Your task to perform on an android device: change the clock display to digital Image 0: 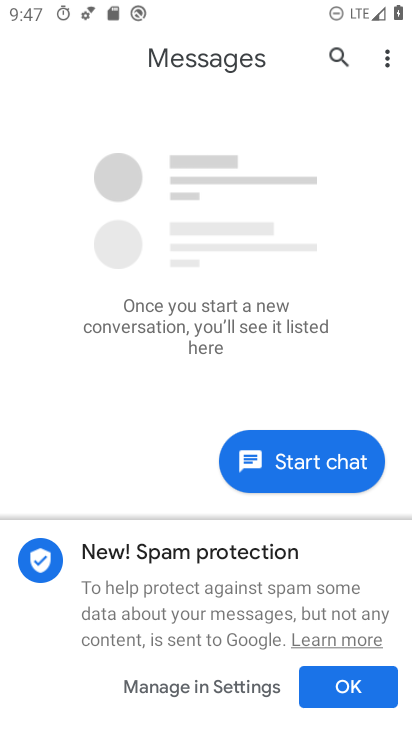
Step 0: press home button
Your task to perform on an android device: change the clock display to digital Image 1: 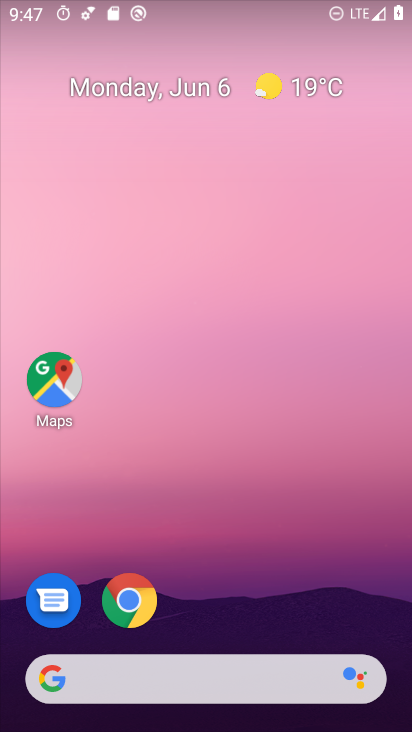
Step 1: drag from (250, 567) to (170, 4)
Your task to perform on an android device: change the clock display to digital Image 2: 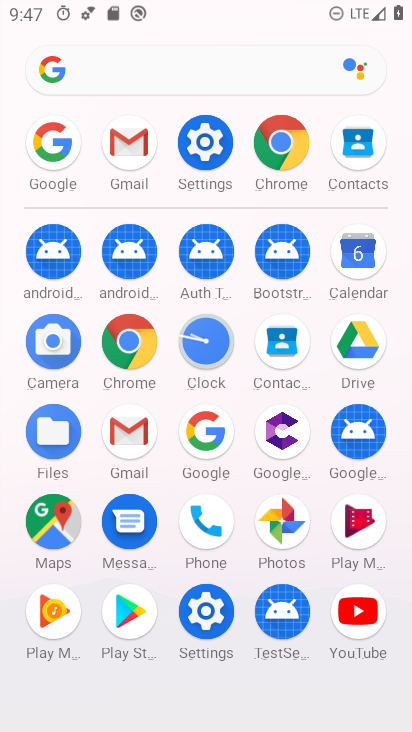
Step 2: click (212, 335)
Your task to perform on an android device: change the clock display to digital Image 3: 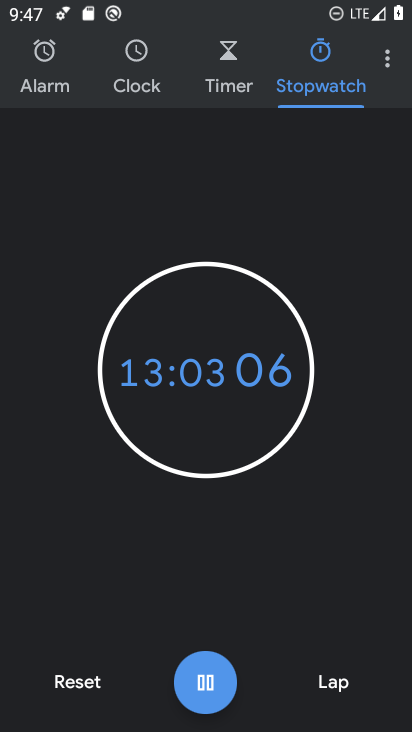
Step 3: click (388, 59)
Your task to perform on an android device: change the clock display to digital Image 4: 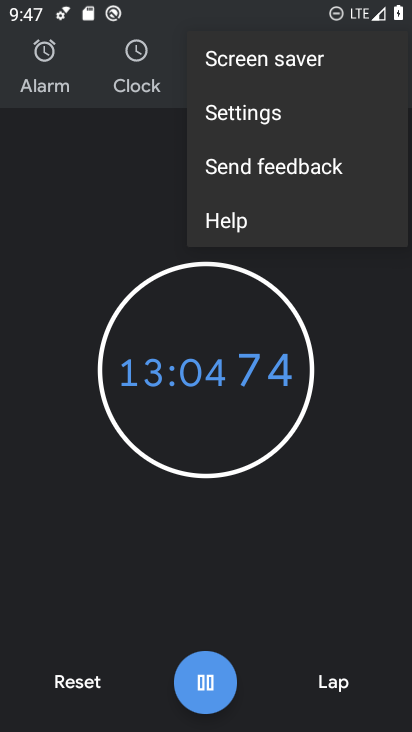
Step 4: click (273, 126)
Your task to perform on an android device: change the clock display to digital Image 5: 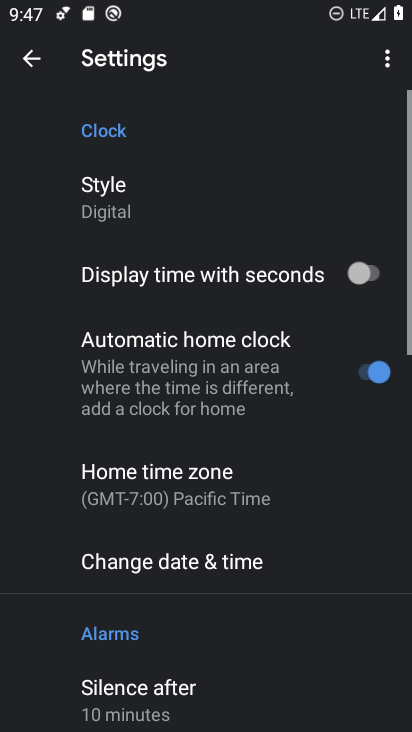
Step 5: click (138, 203)
Your task to perform on an android device: change the clock display to digital Image 6: 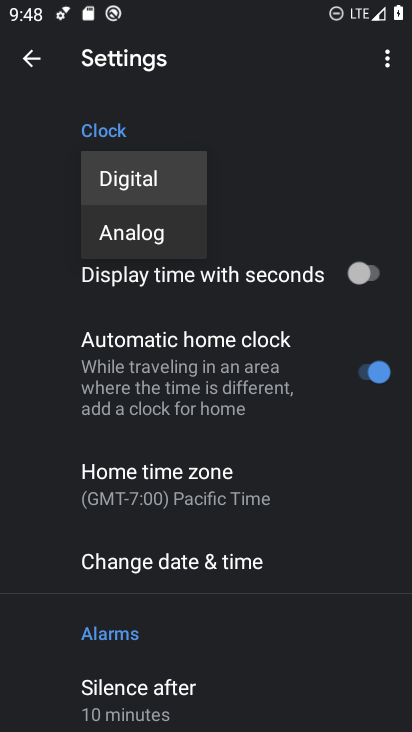
Step 6: task complete